Your task to perform on an android device: What's the weather today? Image 0: 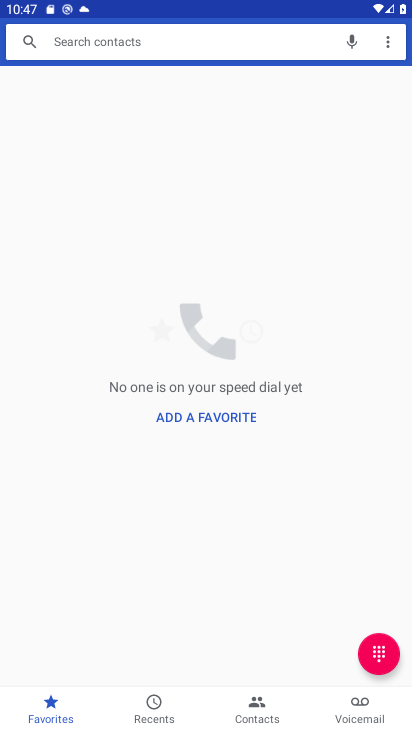
Step 0: press home button
Your task to perform on an android device: What's the weather today? Image 1: 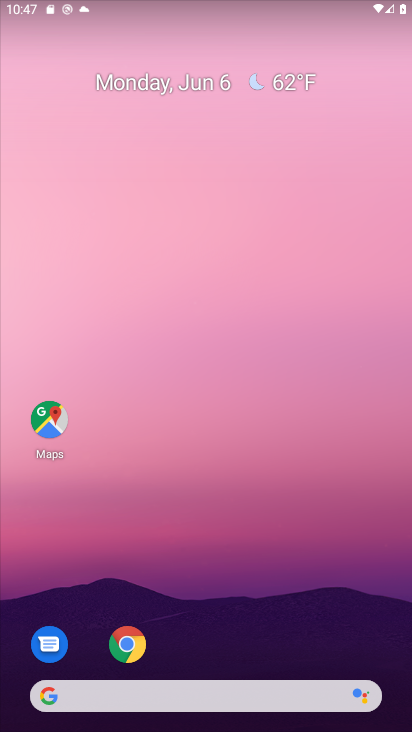
Step 1: drag from (223, 680) to (278, 220)
Your task to perform on an android device: What's the weather today? Image 2: 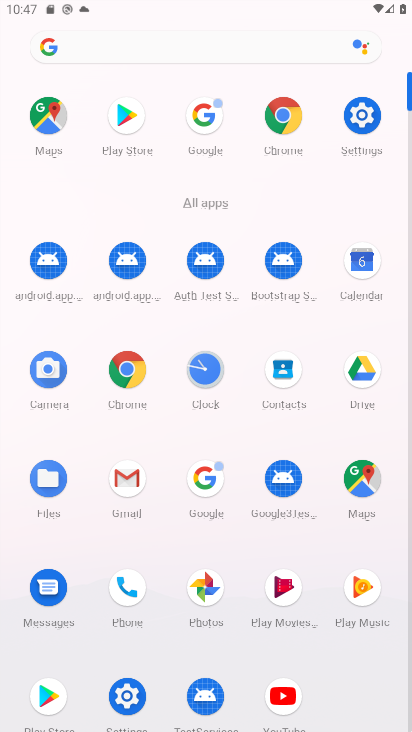
Step 2: click (199, 119)
Your task to perform on an android device: What's the weather today? Image 3: 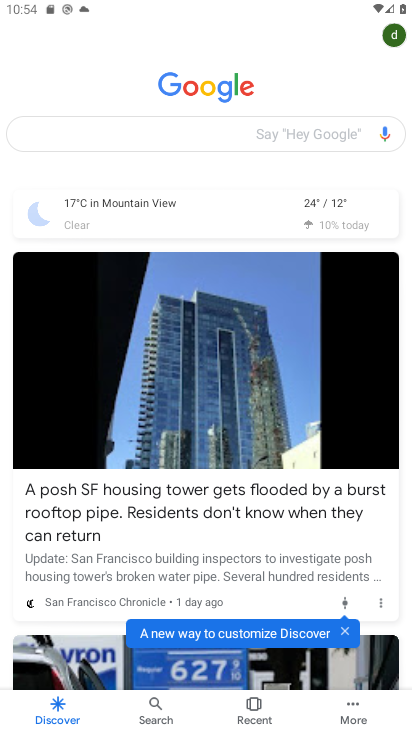
Step 3: click (205, 131)
Your task to perform on an android device: What's the weather today? Image 4: 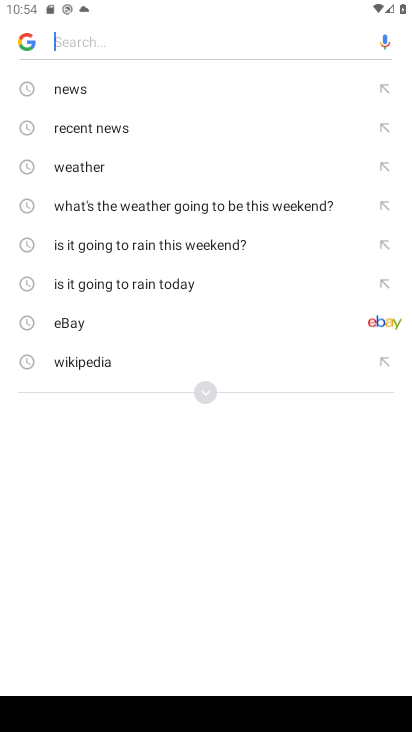
Step 4: click (85, 165)
Your task to perform on an android device: What's the weather today? Image 5: 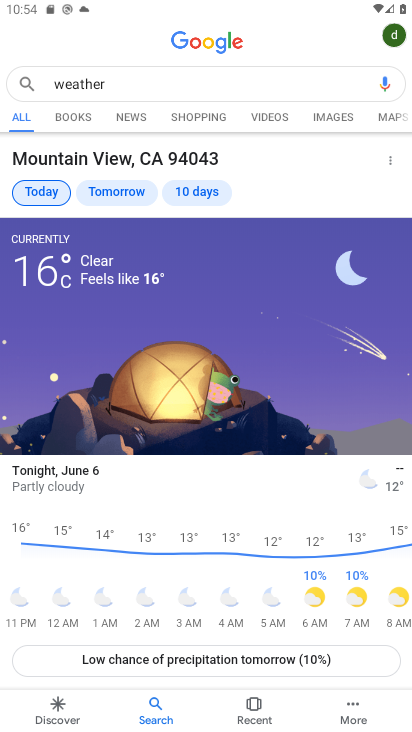
Step 5: task complete